Your task to perform on an android device: Open the calendar and show me this week's events? Image 0: 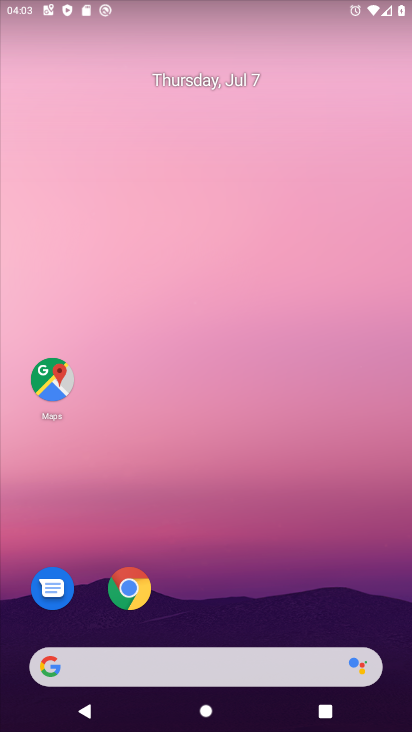
Step 0: drag from (176, 640) to (117, 213)
Your task to perform on an android device: Open the calendar and show me this week's events? Image 1: 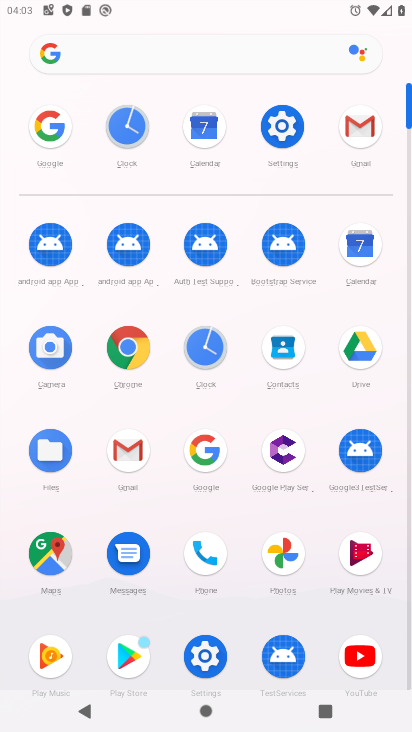
Step 1: click (204, 132)
Your task to perform on an android device: Open the calendar and show me this week's events? Image 2: 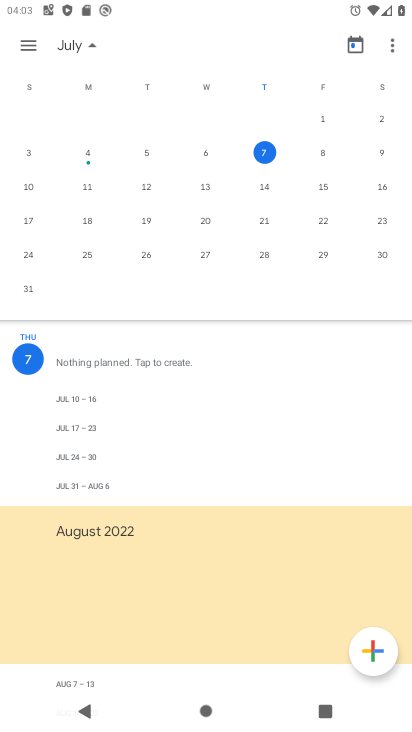
Step 2: click (82, 400)
Your task to perform on an android device: Open the calendar and show me this week's events? Image 3: 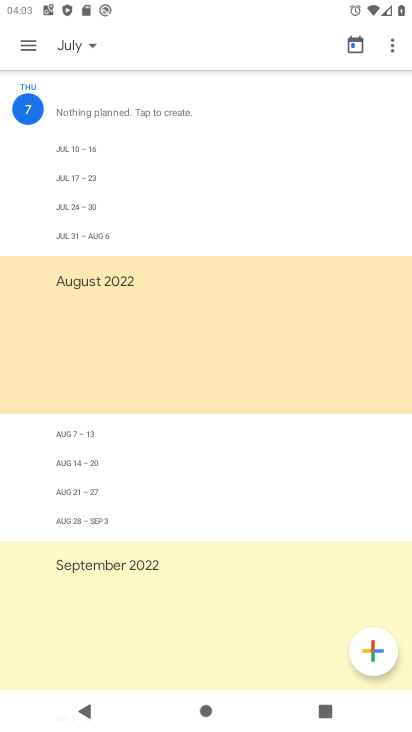
Step 3: click (82, 400)
Your task to perform on an android device: Open the calendar and show me this week's events? Image 4: 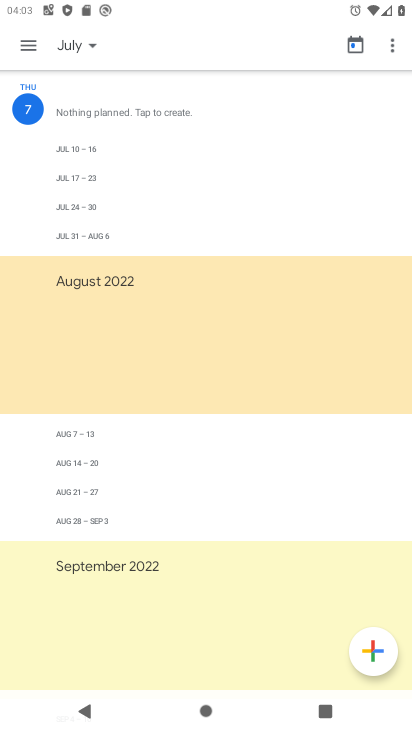
Step 4: task complete